Your task to perform on an android device: show emergency info Image 0: 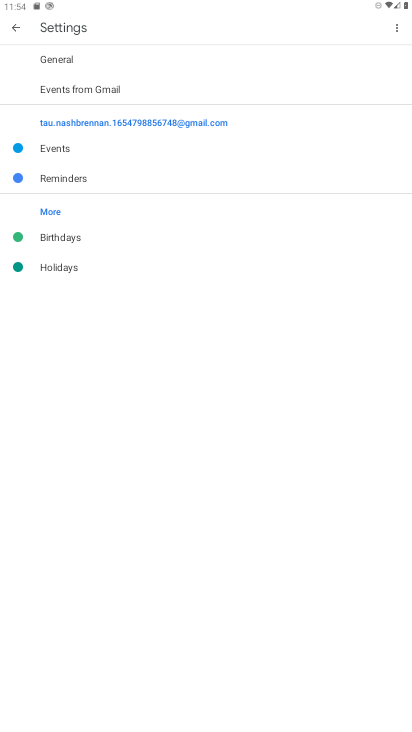
Step 0: press home button
Your task to perform on an android device: show emergency info Image 1: 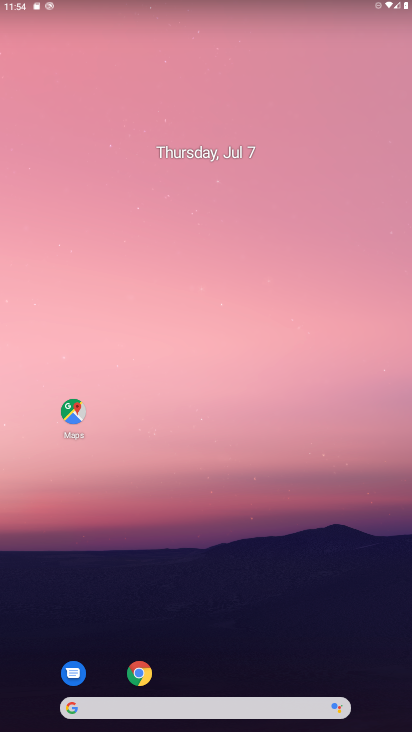
Step 1: drag from (379, 708) to (252, 83)
Your task to perform on an android device: show emergency info Image 2: 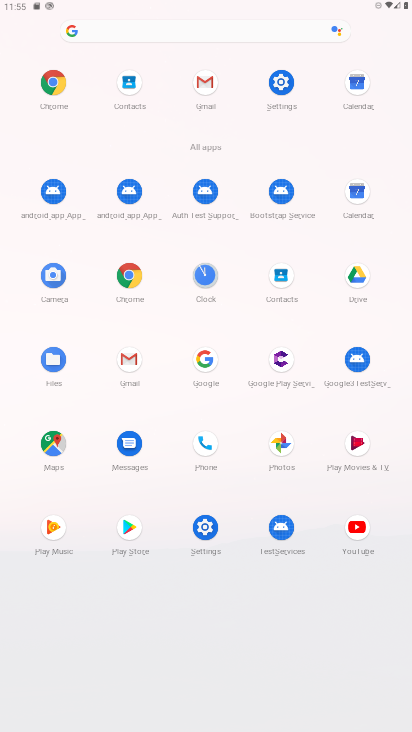
Step 2: click (274, 85)
Your task to perform on an android device: show emergency info Image 3: 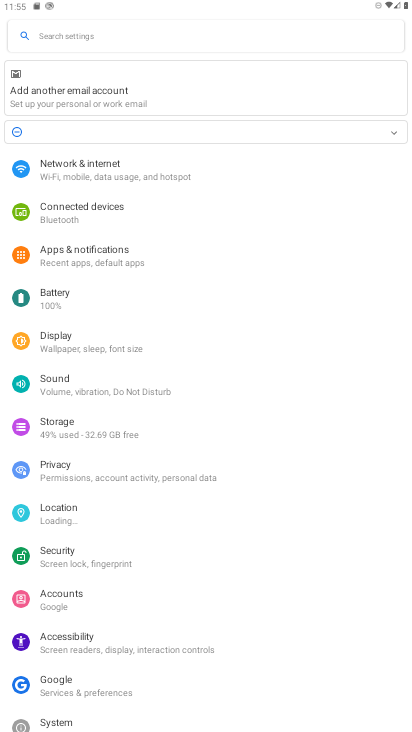
Step 3: drag from (272, 710) to (253, 370)
Your task to perform on an android device: show emergency info Image 4: 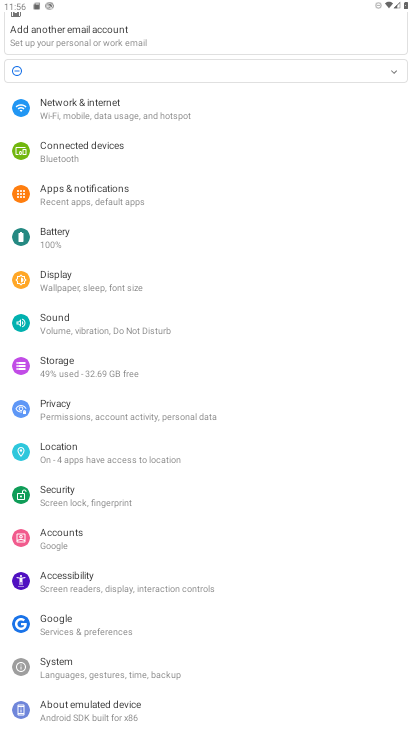
Step 4: drag from (236, 692) to (222, 348)
Your task to perform on an android device: show emergency info Image 5: 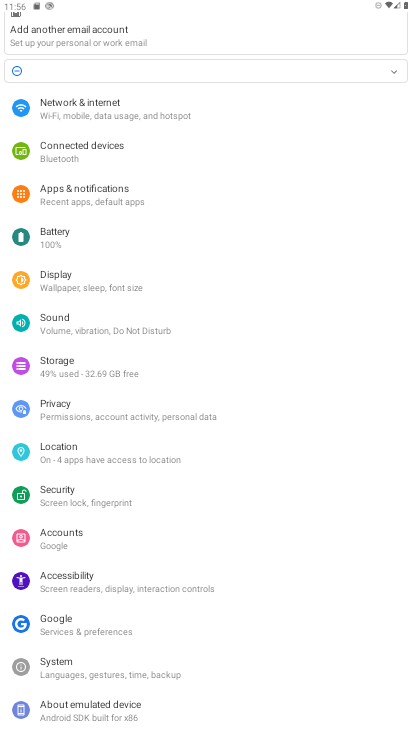
Step 5: drag from (207, 698) to (210, 381)
Your task to perform on an android device: show emergency info Image 6: 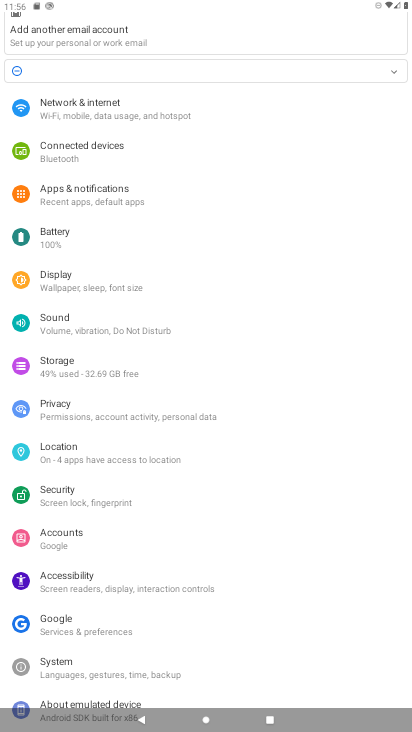
Step 6: click (79, 701)
Your task to perform on an android device: show emergency info Image 7: 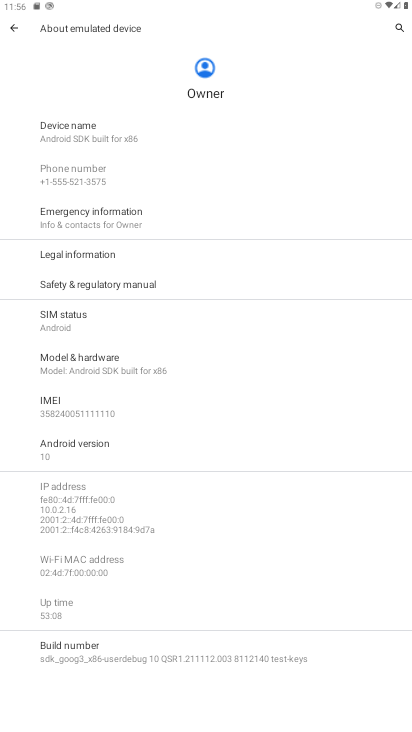
Step 7: click (74, 219)
Your task to perform on an android device: show emergency info Image 8: 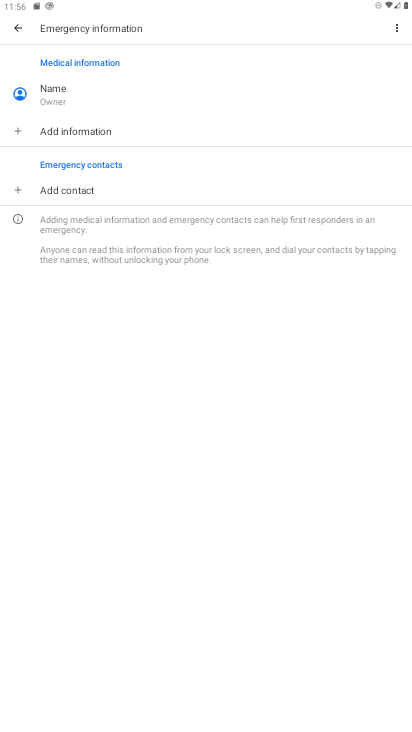
Step 8: task complete